Your task to perform on an android device: Open Youtube and go to "Your channel" Image 0: 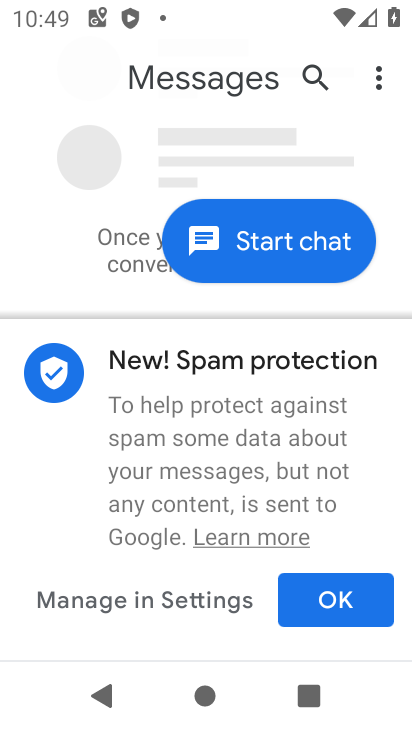
Step 0: press home button
Your task to perform on an android device: Open Youtube and go to "Your channel" Image 1: 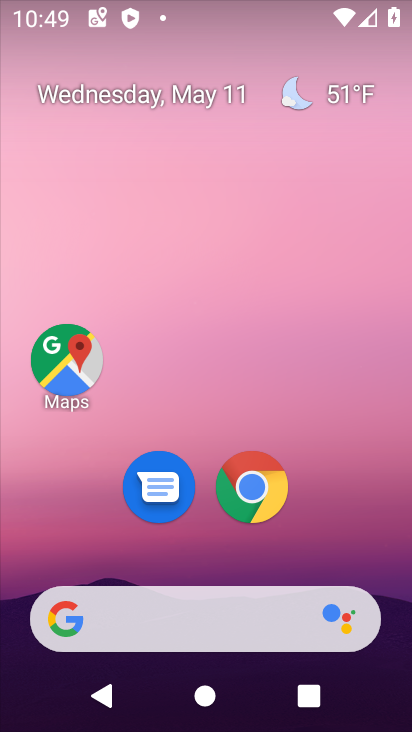
Step 1: drag from (308, 497) to (280, 144)
Your task to perform on an android device: Open Youtube and go to "Your channel" Image 2: 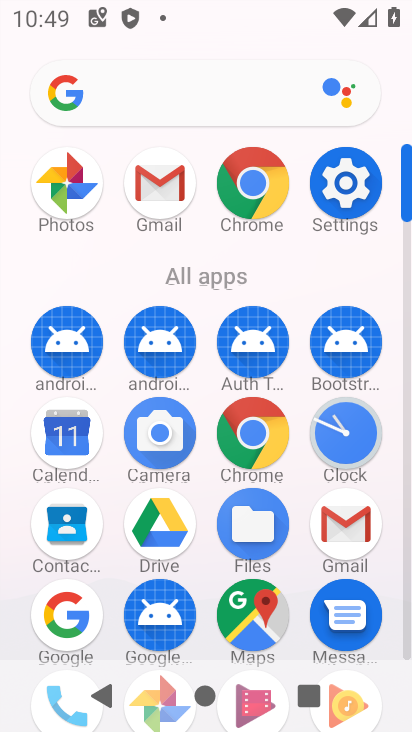
Step 2: drag from (301, 632) to (300, 267)
Your task to perform on an android device: Open Youtube and go to "Your channel" Image 3: 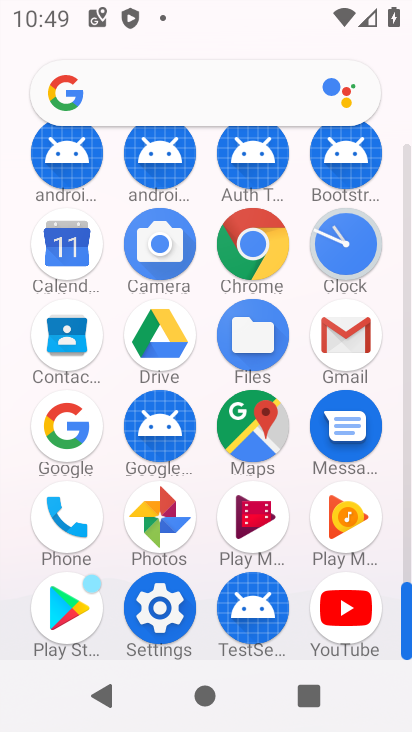
Step 3: click (357, 604)
Your task to perform on an android device: Open Youtube and go to "Your channel" Image 4: 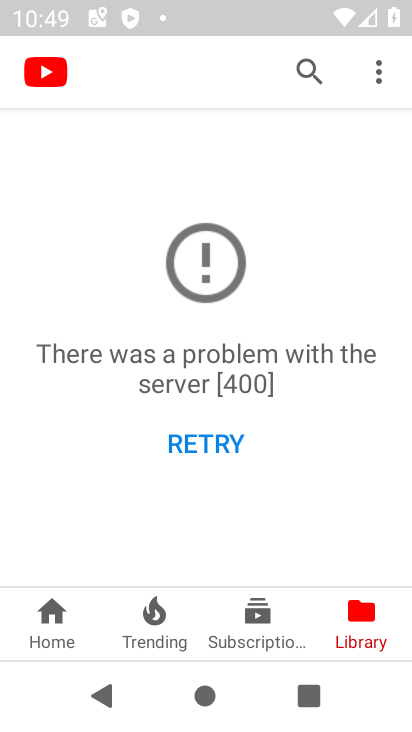
Step 4: task complete